Your task to perform on an android device: Turn off the flashlight Image 0: 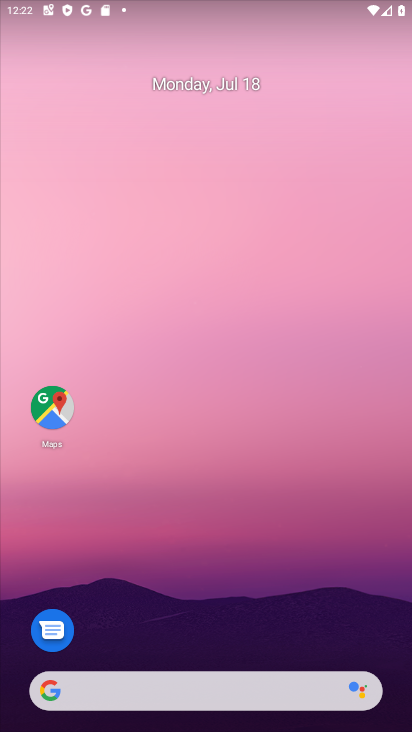
Step 0: drag from (303, 37) to (266, 568)
Your task to perform on an android device: Turn off the flashlight Image 1: 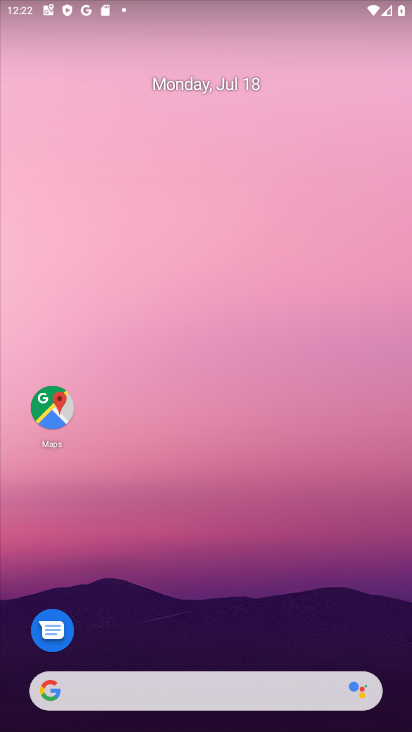
Step 1: task complete